Your task to perform on an android device: Open Maps and search for coffee Image 0: 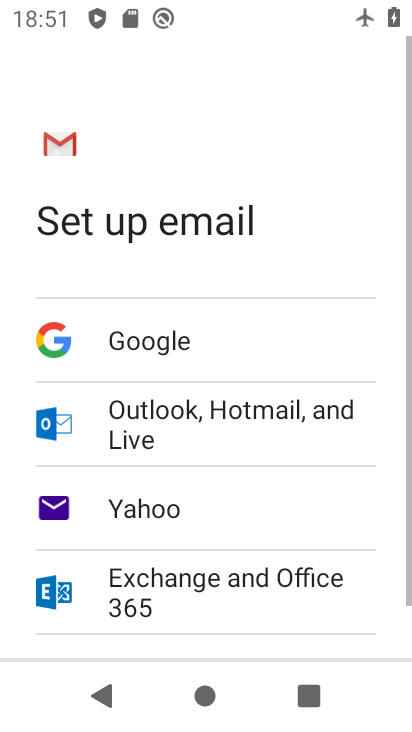
Step 0: press home button
Your task to perform on an android device: Open Maps and search for coffee Image 1: 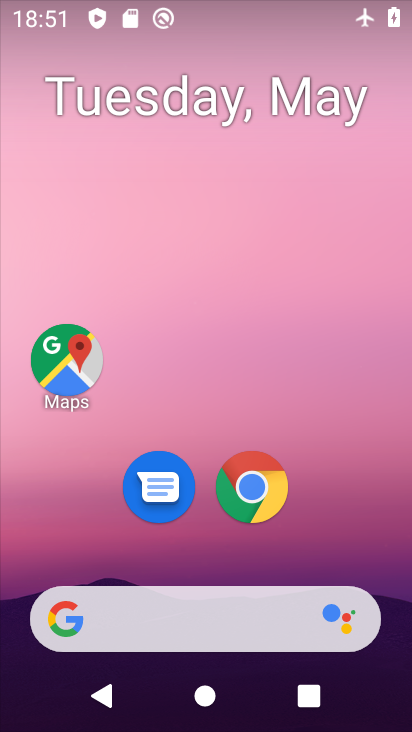
Step 1: click (57, 374)
Your task to perform on an android device: Open Maps and search for coffee Image 2: 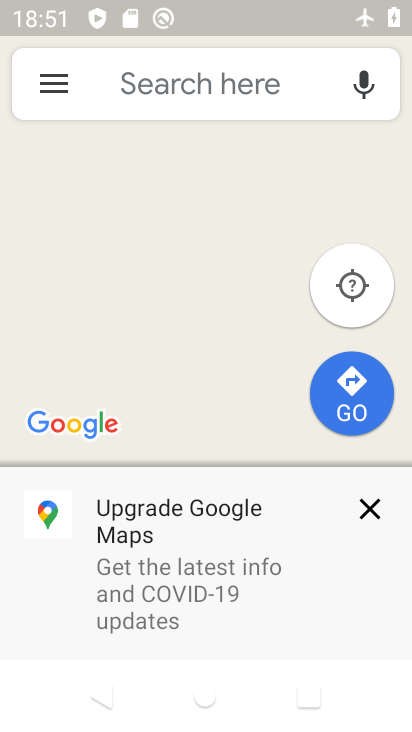
Step 2: click (153, 80)
Your task to perform on an android device: Open Maps and search for coffee Image 3: 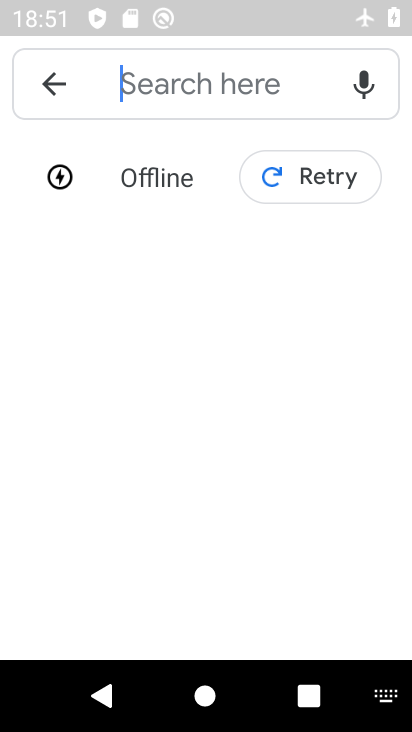
Step 3: type "coffee"
Your task to perform on an android device: Open Maps and search for coffee Image 4: 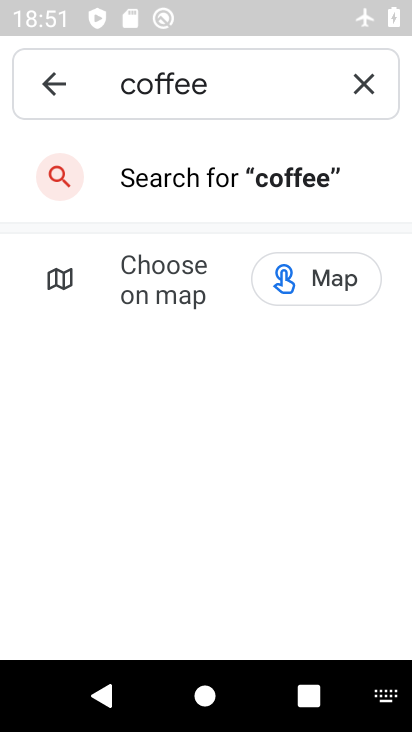
Step 4: task complete